Your task to perform on an android device: Search for pizza restaurants on Maps Image 0: 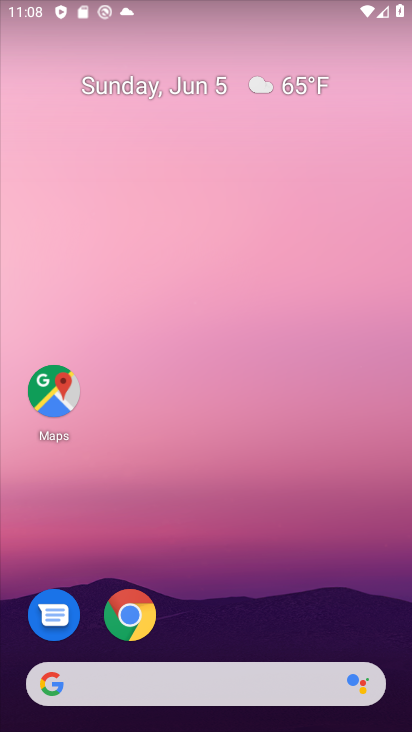
Step 0: click (44, 404)
Your task to perform on an android device: Search for pizza restaurants on Maps Image 1: 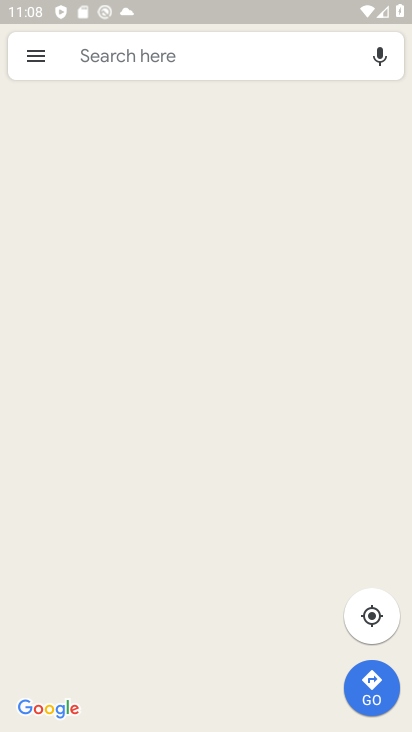
Step 1: click (166, 51)
Your task to perform on an android device: Search for pizza restaurants on Maps Image 2: 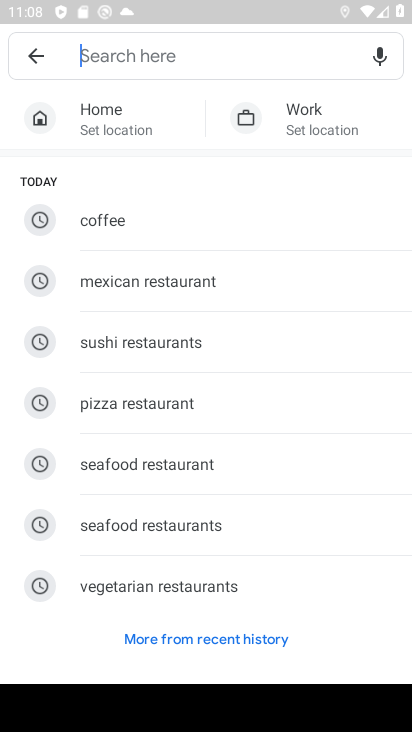
Step 2: click (126, 402)
Your task to perform on an android device: Search for pizza restaurants on Maps Image 3: 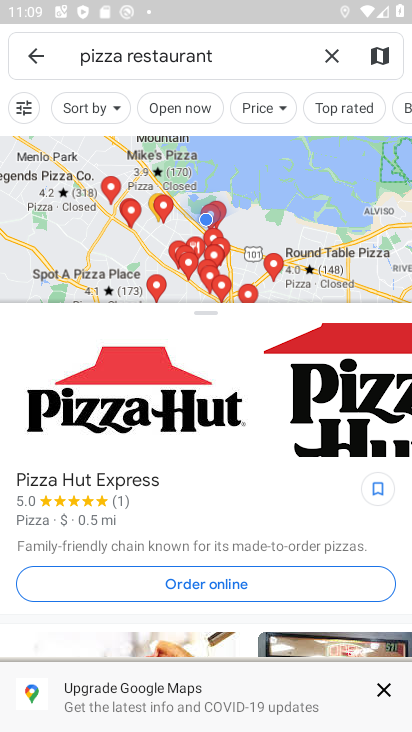
Step 3: task complete